Your task to perform on an android device: set an alarm Image 0: 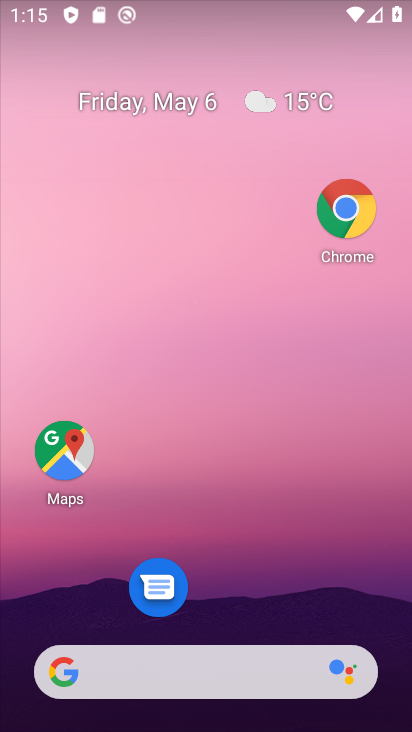
Step 0: drag from (252, 456) to (239, 119)
Your task to perform on an android device: set an alarm Image 1: 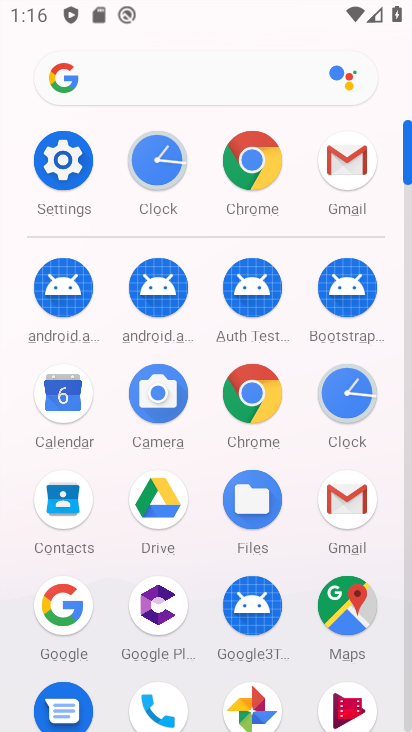
Step 1: click (340, 435)
Your task to perform on an android device: set an alarm Image 2: 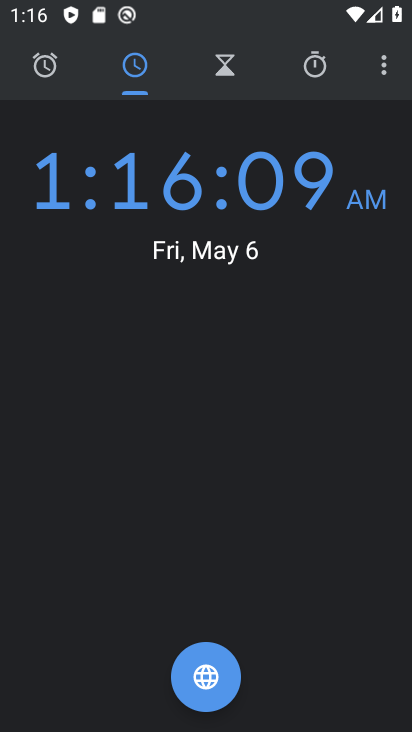
Step 2: click (383, 67)
Your task to perform on an android device: set an alarm Image 3: 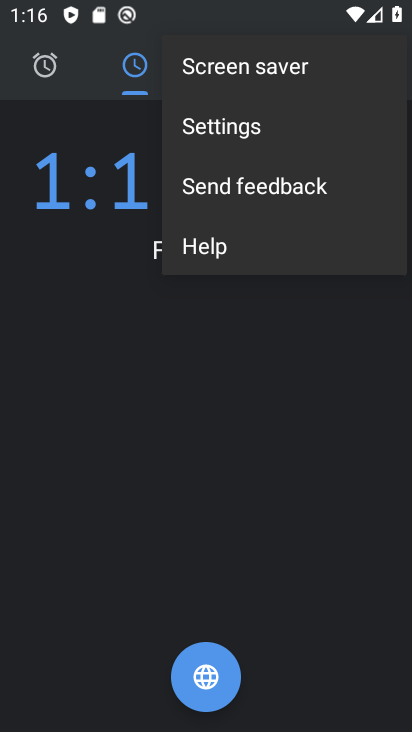
Step 3: click (309, 387)
Your task to perform on an android device: set an alarm Image 4: 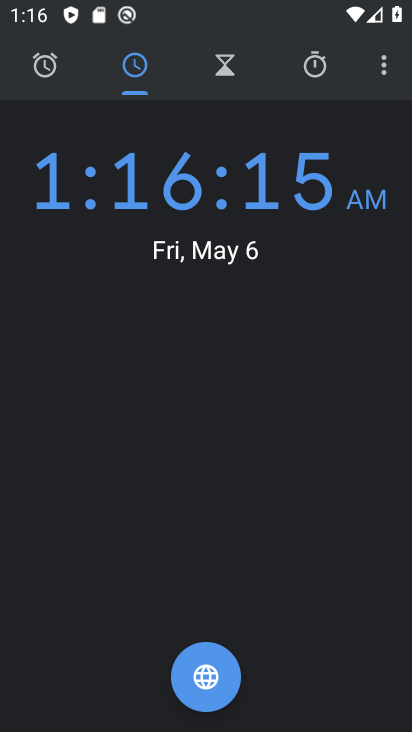
Step 4: click (388, 65)
Your task to perform on an android device: set an alarm Image 5: 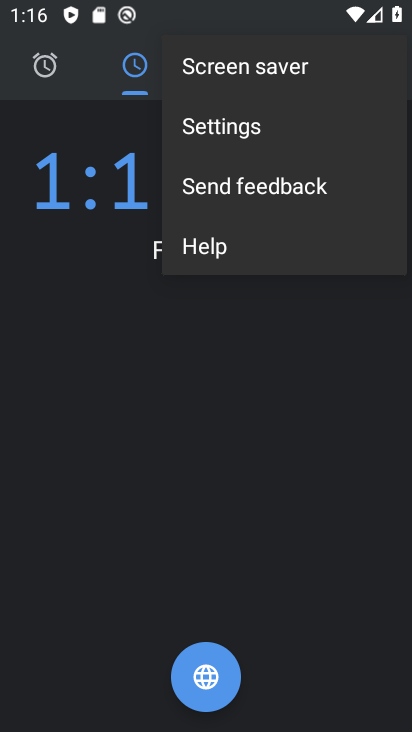
Step 5: click (46, 52)
Your task to perform on an android device: set an alarm Image 6: 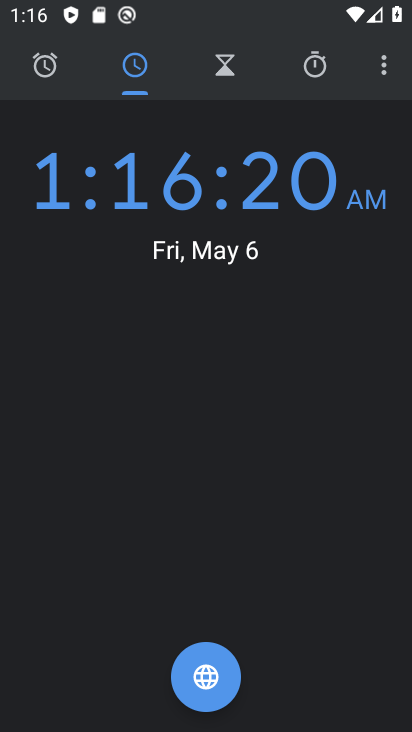
Step 6: click (50, 63)
Your task to perform on an android device: set an alarm Image 7: 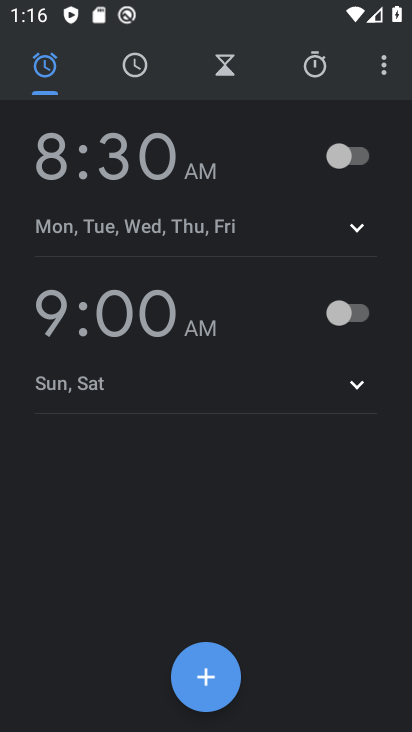
Step 7: click (51, 73)
Your task to perform on an android device: set an alarm Image 8: 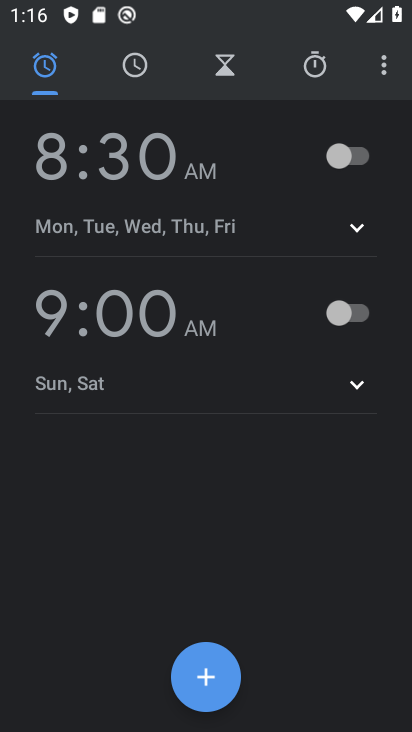
Step 8: click (375, 156)
Your task to perform on an android device: set an alarm Image 9: 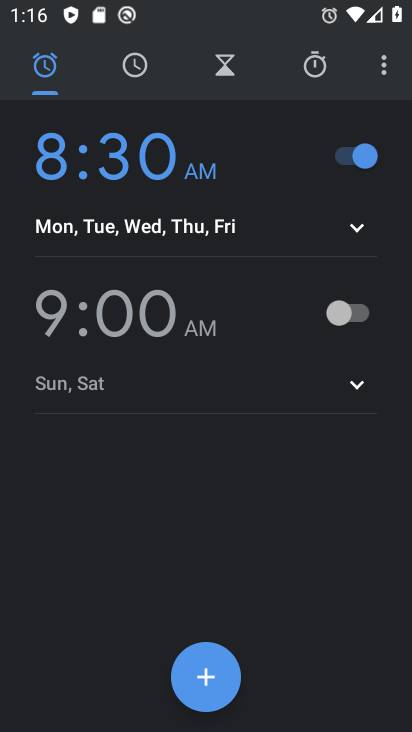
Step 9: task complete